Your task to perform on an android device: Open my contact list Image 0: 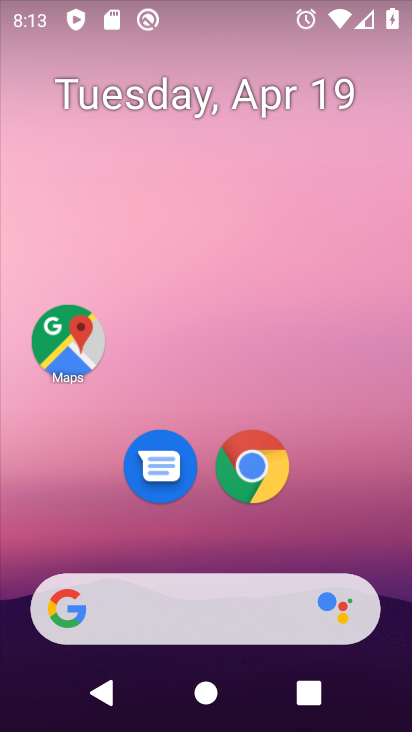
Step 0: click (377, 366)
Your task to perform on an android device: Open my contact list Image 1: 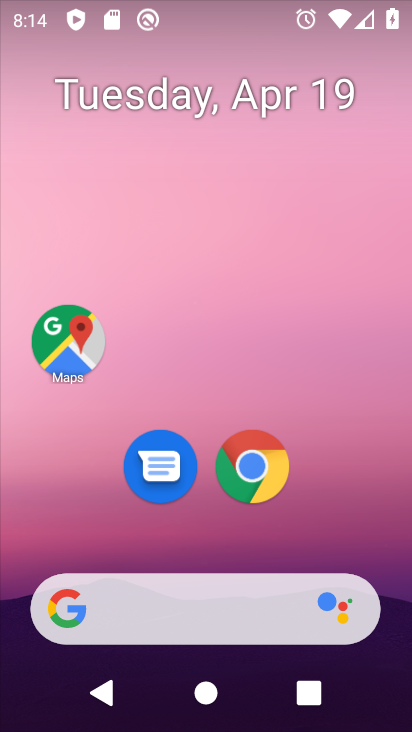
Step 1: drag from (364, 515) to (409, 235)
Your task to perform on an android device: Open my contact list Image 2: 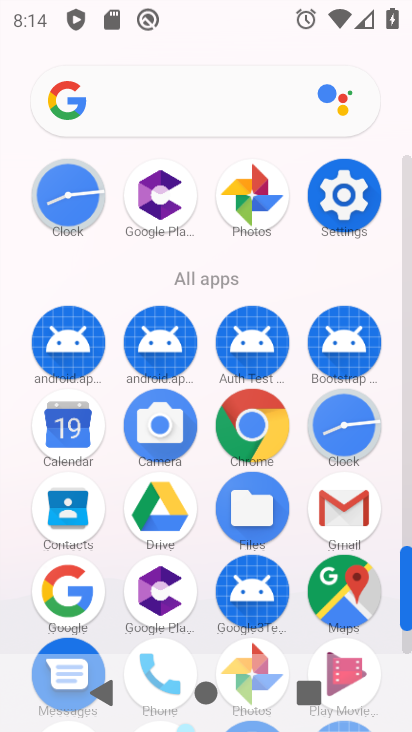
Step 2: click (66, 524)
Your task to perform on an android device: Open my contact list Image 3: 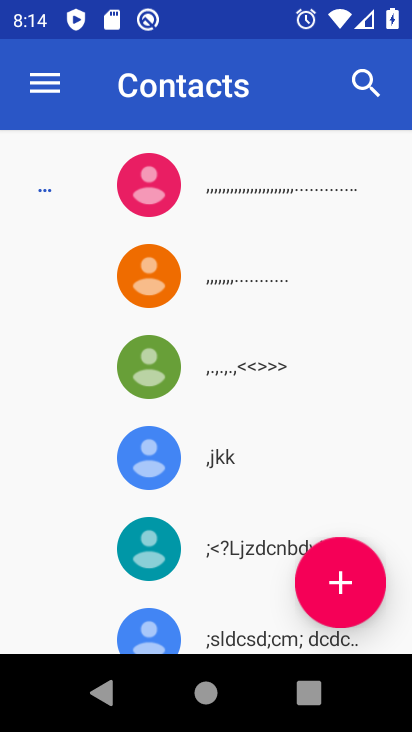
Step 3: task complete